Your task to perform on an android device: turn pop-ups off in chrome Image 0: 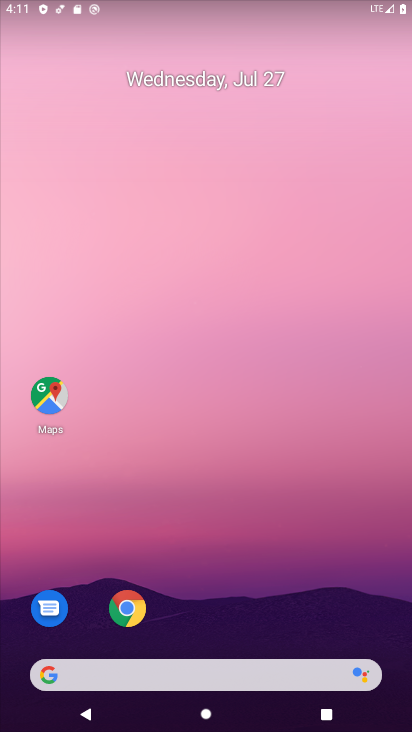
Step 0: drag from (243, 611) to (200, 246)
Your task to perform on an android device: turn pop-ups off in chrome Image 1: 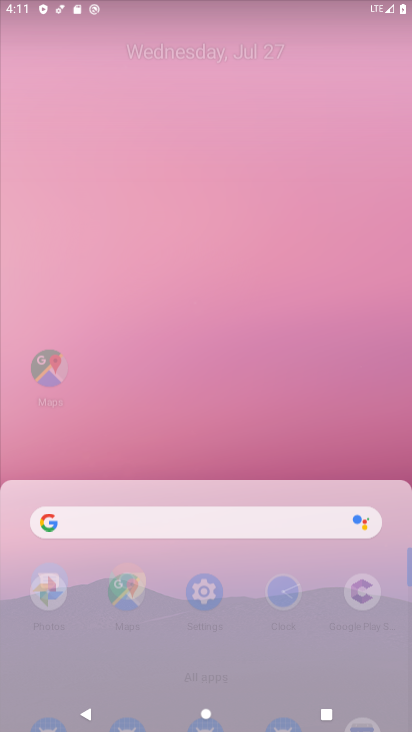
Step 1: drag from (212, 565) to (225, 219)
Your task to perform on an android device: turn pop-ups off in chrome Image 2: 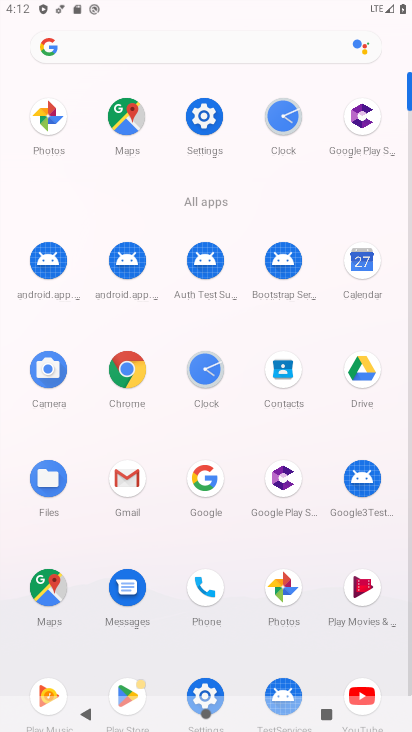
Step 2: click (130, 366)
Your task to perform on an android device: turn pop-ups off in chrome Image 3: 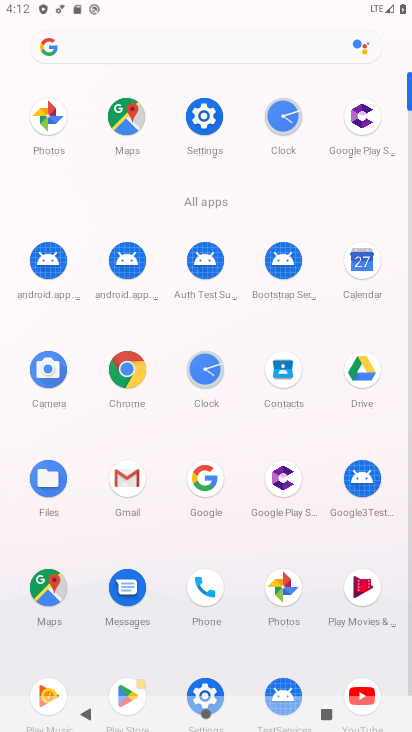
Step 3: click (133, 364)
Your task to perform on an android device: turn pop-ups off in chrome Image 4: 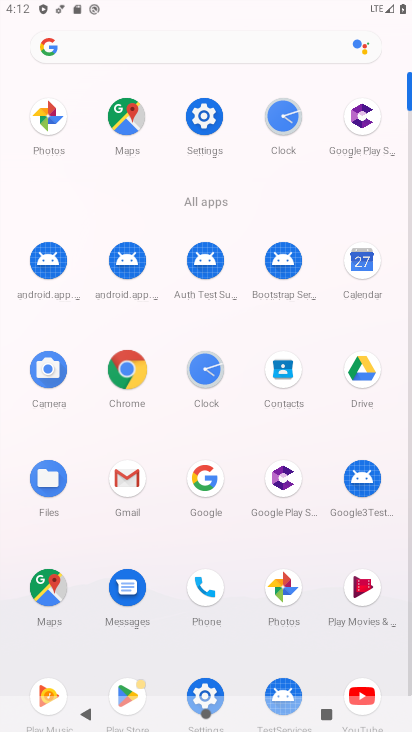
Step 4: click (136, 365)
Your task to perform on an android device: turn pop-ups off in chrome Image 5: 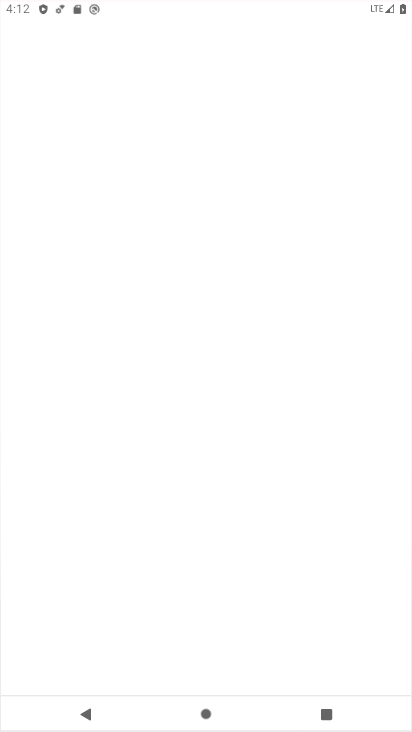
Step 5: click (137, 366)
Your task to perform on an android device: turn pop-ups off in chrome Image 6: 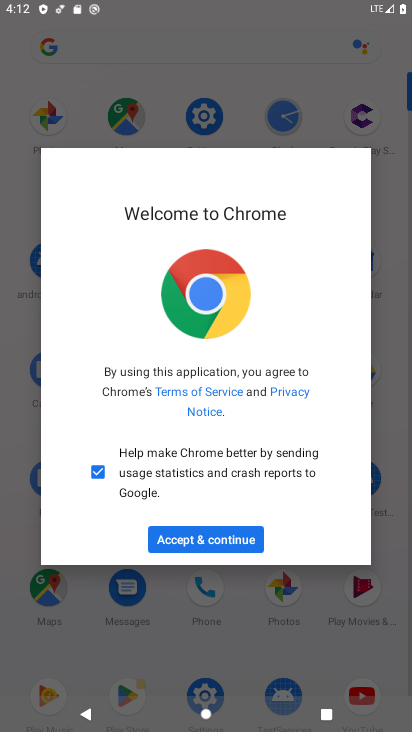
Step 6: click (211, 541)
Your task to perform on an android device: turn pop-ups off in chrome Image 7: 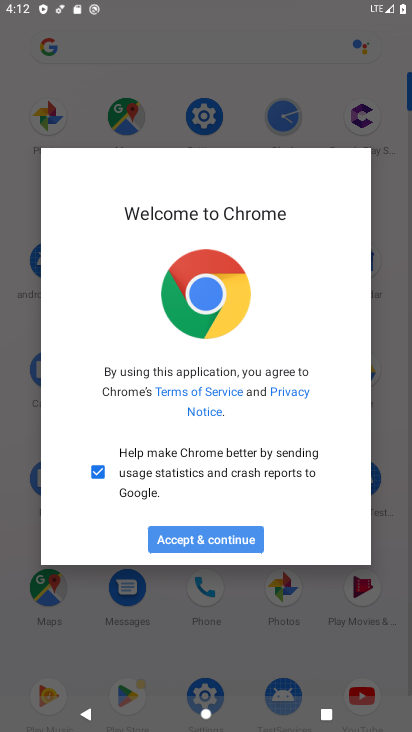
Step 7: click (218, 535)
Your task to perform on an android device: turn pop-ups off in chrome Image 8: 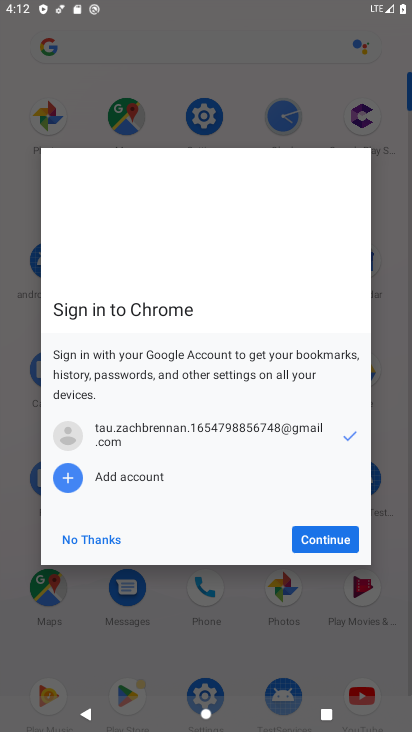
Step 8: click (219, 535)
Your task to perform on an android device: turn pop-ups off in chrome Image 9: 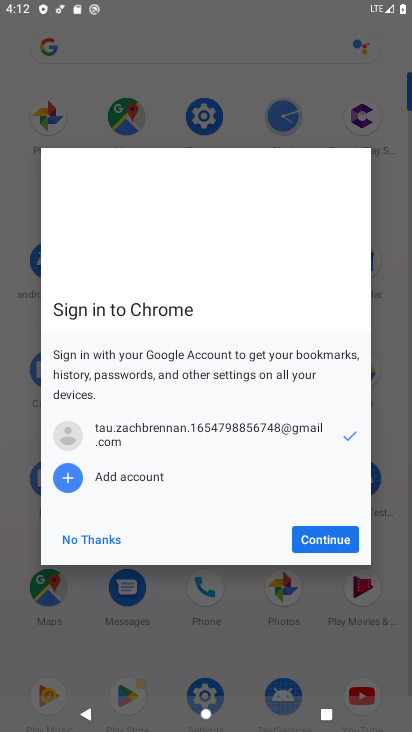
Step 9: click (86, 534)
Your task to perform on an android device: turn pop-ups off in chrome Image 10: 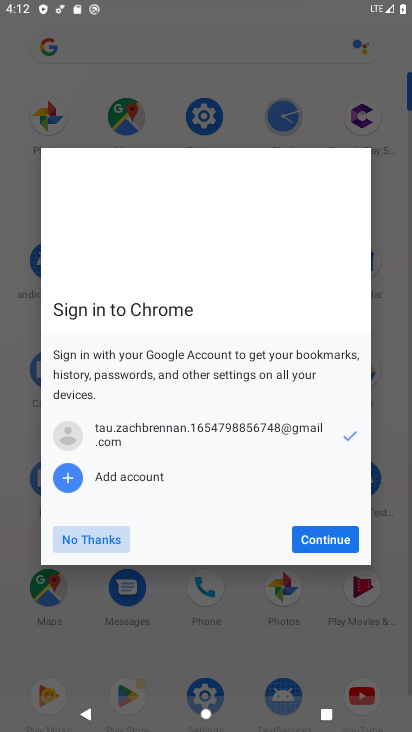
Step 10: click (89, 531)
Your task to perform on an android device: turn pop-ups off in chrome Image 11: 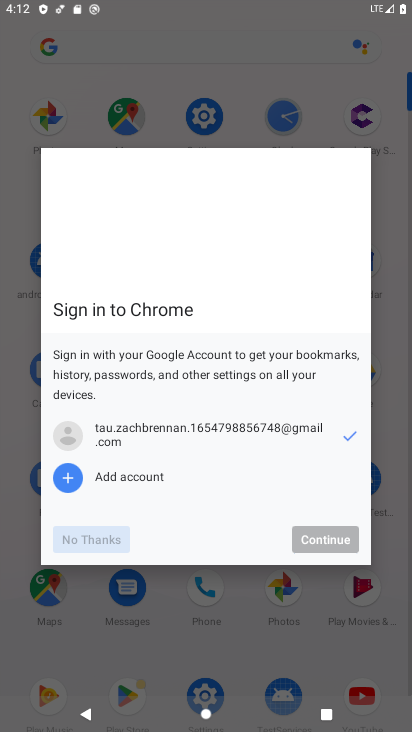
Step 11: click (89, 533)
Your task to perform on an android device: turn pop-ups off in chrome Image 12: 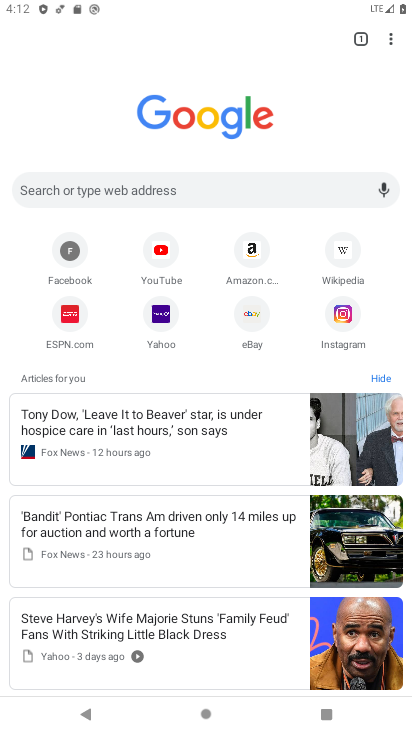
Step 12: drag from (389, 34) to (258, 331)
Your task to perform on an android device: turn pop-ups off in chrome Image 13: 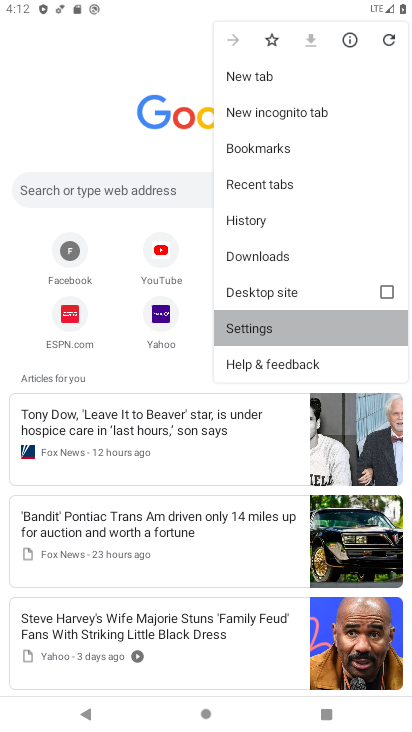
Step 13: click (258, 334)
Your task to perform on an android device: turn pop-ups off in chrome Image 14: 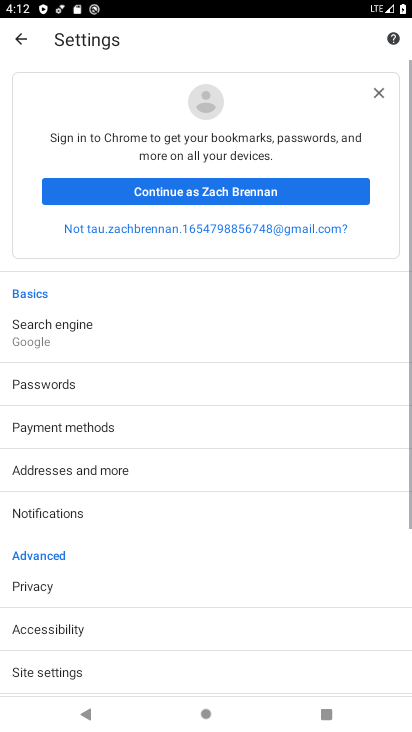
Step 14: drag from (114, 361) to (152, 115)
Your task to perform on an android device: turn pop-ups off in chrome Image 15: 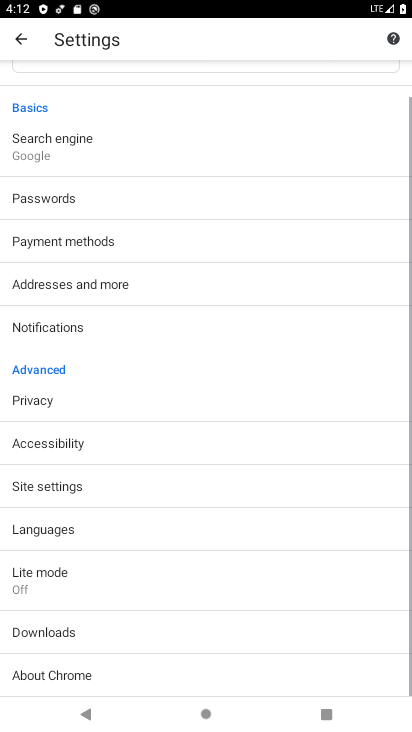
Step 15: drag from (157, 524) to (157, 75)
Your task to perform on an android device: turn pop-ups off in chrome Image 16: 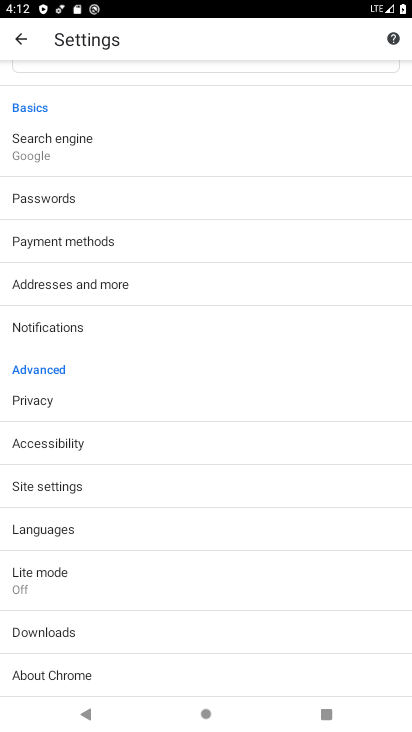
Step 16: click (52, 474)
Your task to perform on an android device: turn pop-ups off in chrome Image 17: 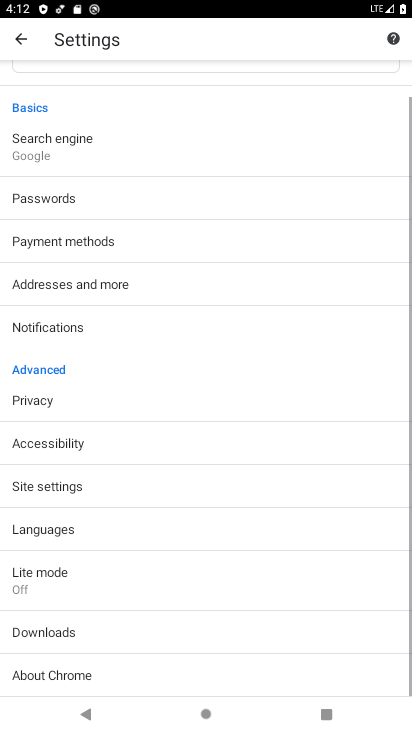
Step 17: click (48, 478)
Your task to perform on an android device: turn pop-ups off in chrome Image 18: 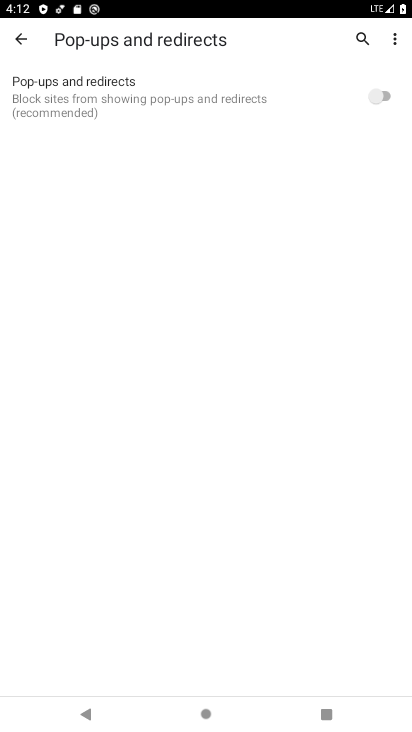
Step 18: task complete